Your task to perform on an android device: Open the stopwatch Image 0: 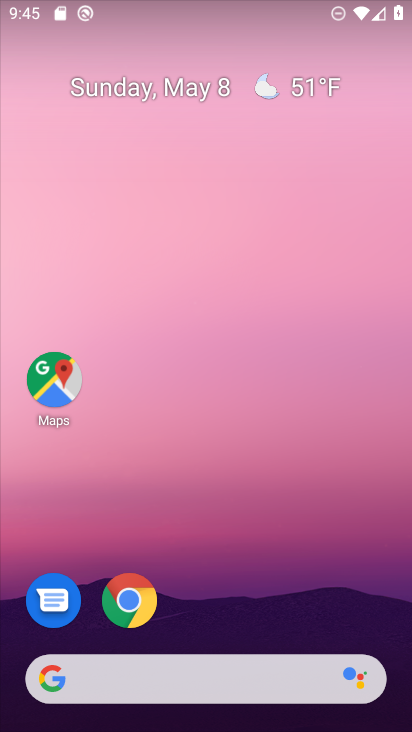
Step 0: drag from (351, 599) to (320, 12)
Your task to perform on an android device: Open the stopwatch Image 1: 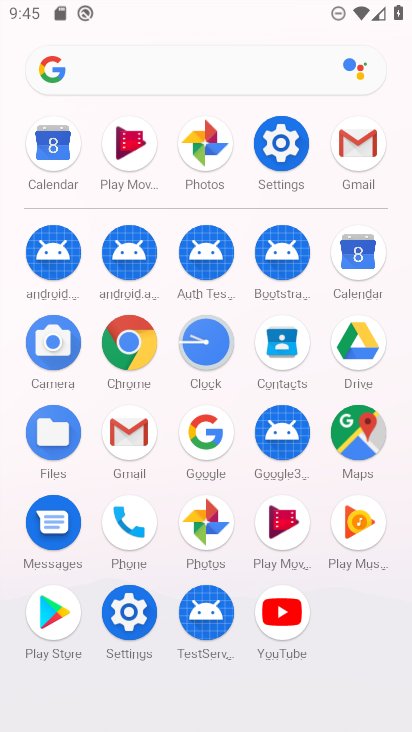
Step 1: click (193, 347)
Your task to perform on an android device: Open the stopwatch Image 2: 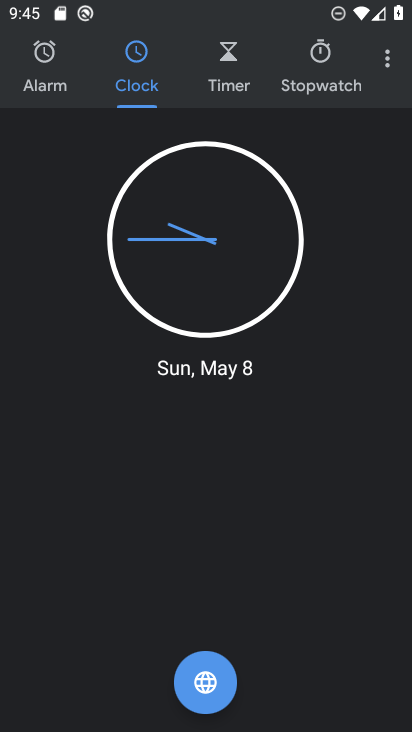
Step 2: click (313, 59)
Your task to perform on an android device: Open the stopwatch Image 3: 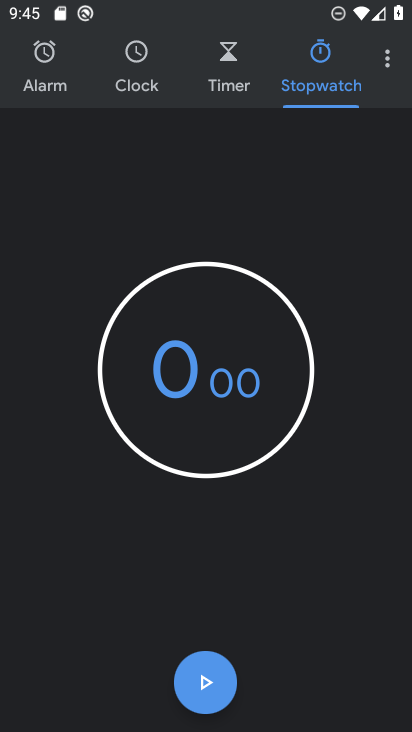
Step 3: task complete